Your task to perform on an android device: Open calendar and show me the fourth week of next month Image 0: 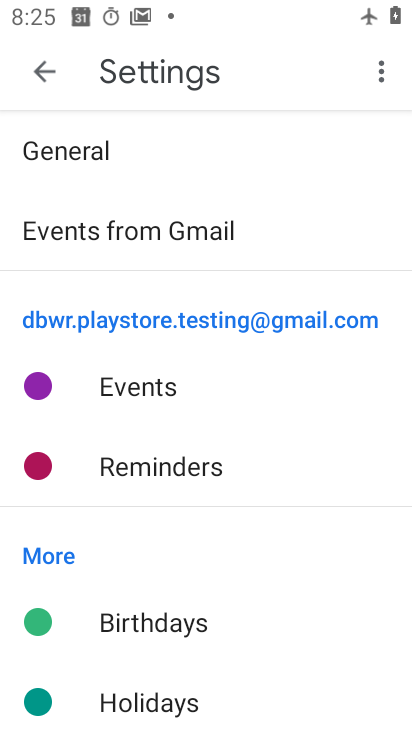
Step 0: press home button
Your task to perform on an android device: Open calendar and show me the fourth week of next month Image 1: 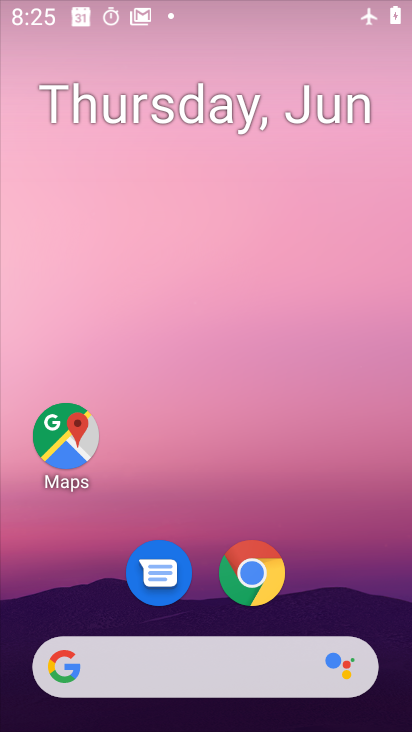
Step 1: drag from (213, 596) to (191, 226)
Your task to perform on an android device: Open calendar and show me the fourth week of next month Image 2: 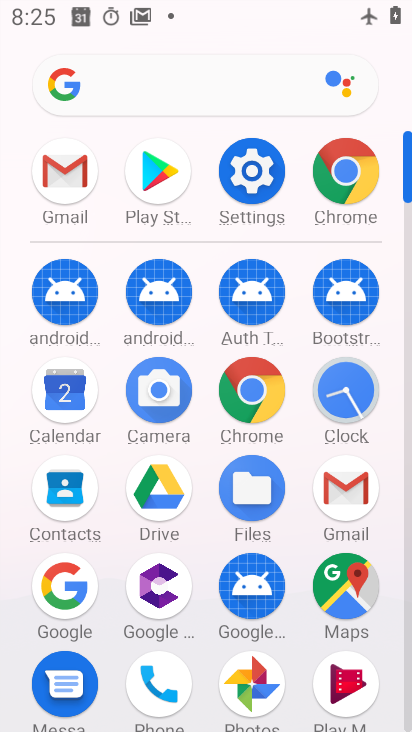
Step 2: click (52, 394)
Your task to perform on an android device: Open calendar and show me the fourth week of next month Image 3: 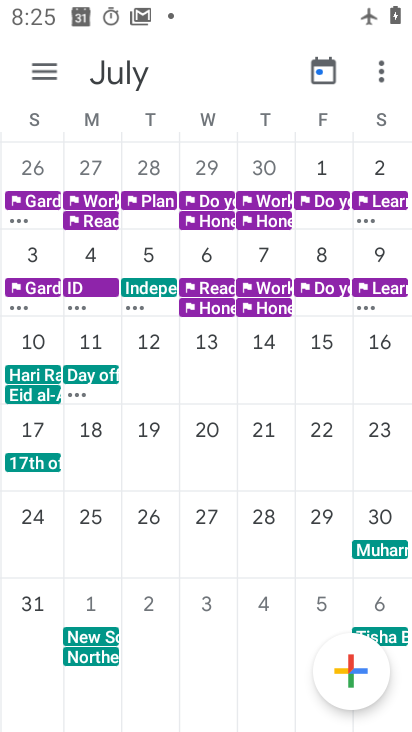
Step 3: task complete